Your task to perform on an android device: visit the assistant section in the google photos Image 0: 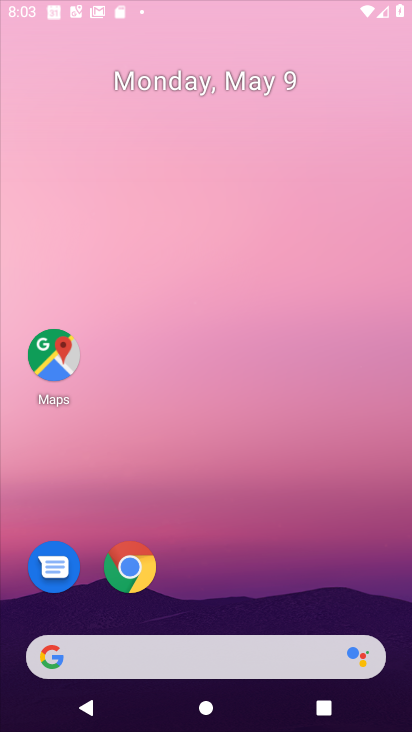
Step 0: click (290, 319)
Your task to perform on an android device: visit the assistant section in the google photos Image 1: 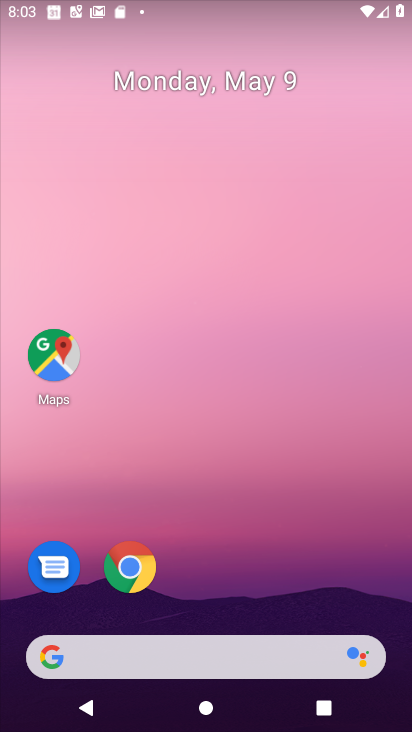
Step 1: drag from (196, 597) to (295, 218)
Your task to perform on an android device: visit the assistant section in the google photos Image 2: 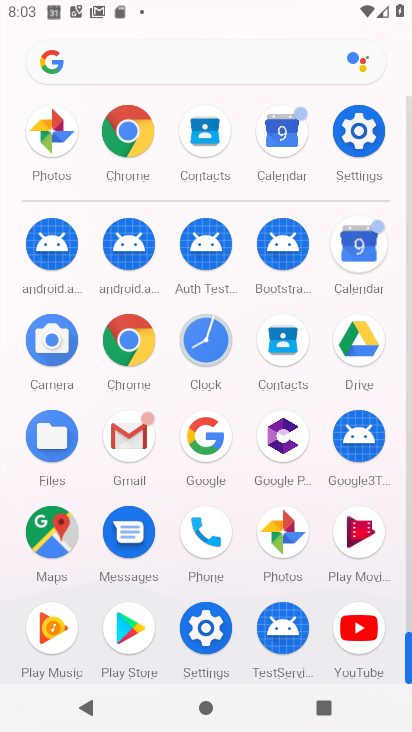
Step 2: click (278, 522)
Your task to perform on an android device: visit the assistant section in the google photos Image 3: 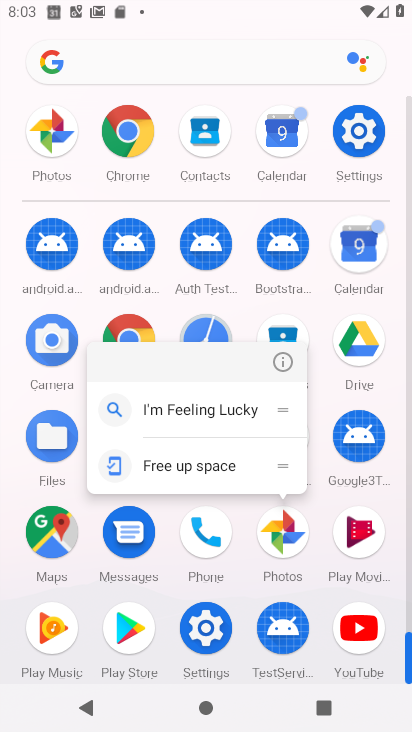
Step 3: click (278, 356)
Your task to perform on an android device: visit the assistant section in the google photos Image 4: 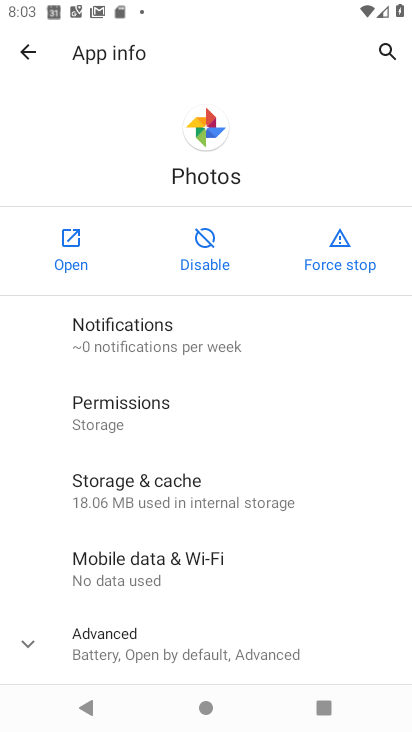
Step 4: click (56, 245)
Your task to perform on an android device: visit the assistant section in the google photos Image 5: 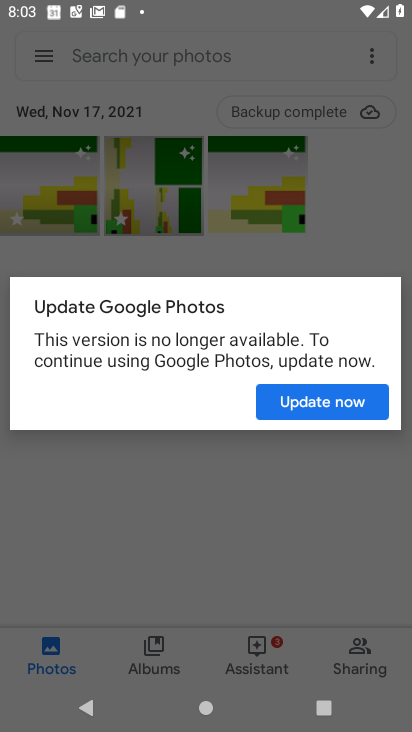
Step 5: click (315, 392)
Your task to perform on an android device: visit the assistant section in the google photos Image 6: 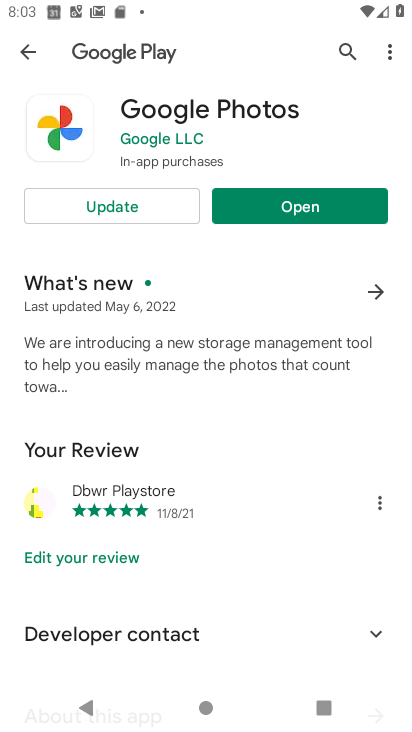
Step 6: press back button
Your task to perform on an android device: visit the assistant section in the google photos Image 7: 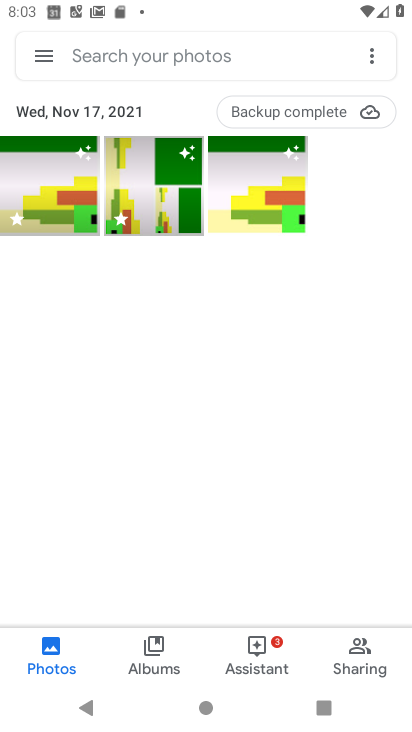
Step 7: click (248, 656)
Your task to perform on an android device: visit the assistant section in the google photos Image 8: 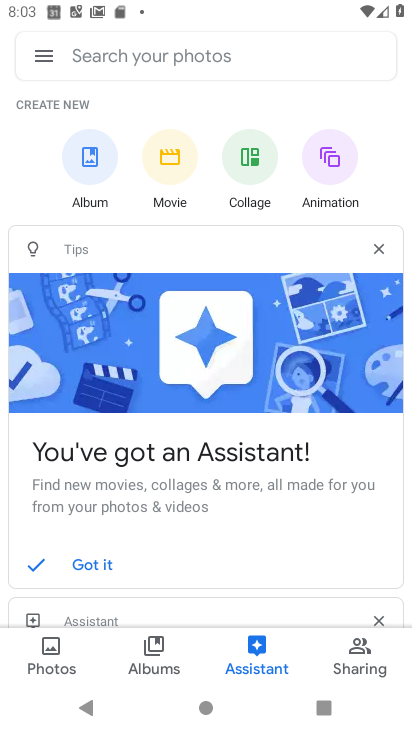
Step 8: task complete